Your task to perform on an android device: see sites visited before in the chrome app Image 0: 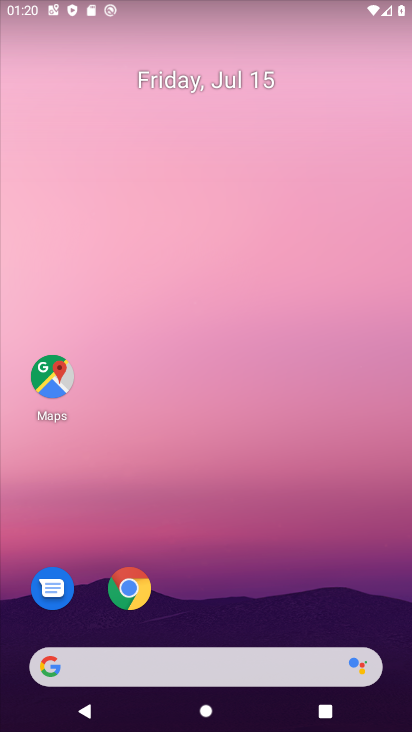
Step 0: click (127, 590)
Your task to perform on an android device: see sites visited before in the chrome app Image 1: 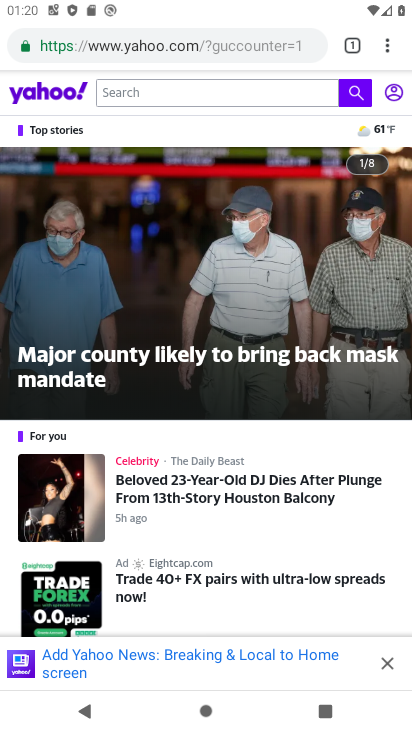
Step 1: click (384, 53)
Your task to perform on an android device: see sites visited before in the chrome app Image 2: 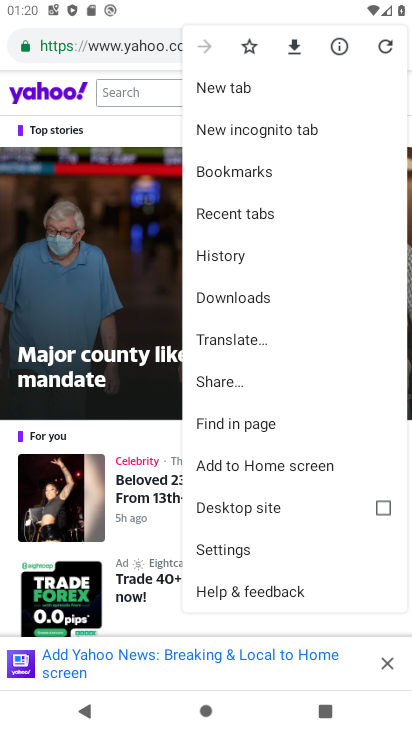
Step 2: click (223, 262)
Your task to perform on an android device: see sites visited before in the chrome app Image 3: 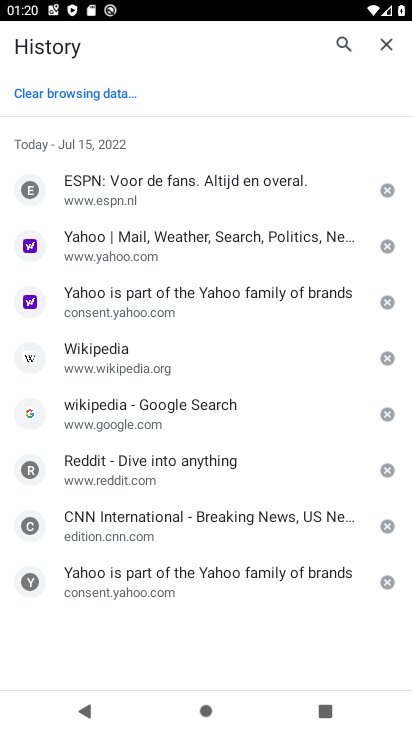
Step 3: task complete